Your task to perform on an android device: Turn on the flashlight Image 0: 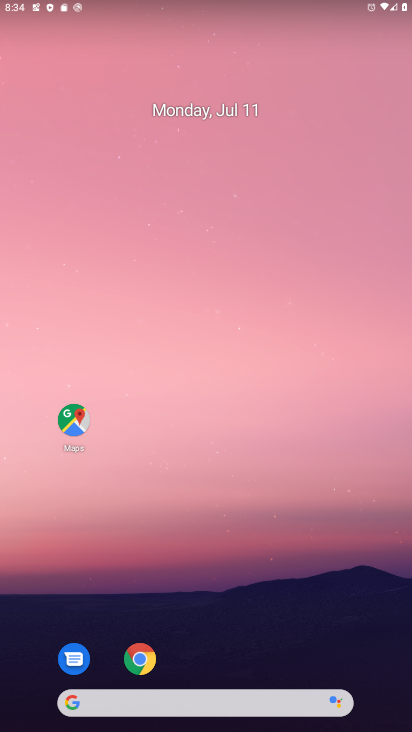
Step 0: drag from (252, 571) to (161, 79)
Your task to perform on an android device: Turn on the flashlight Image 1: 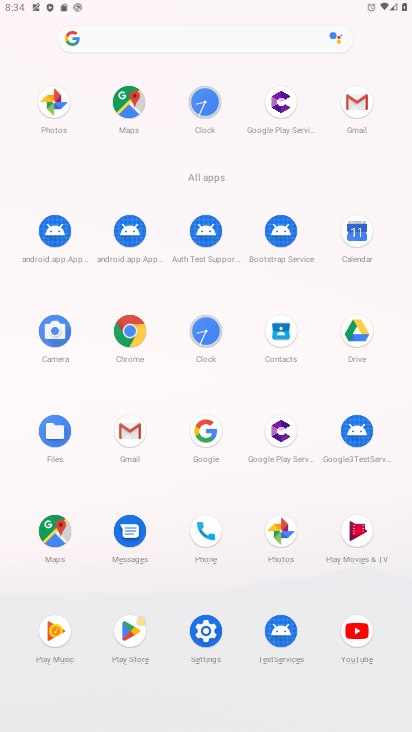
Step 1: click (208, 630)
Your task to perform on an android device: Turn on the flashlight Image 2: 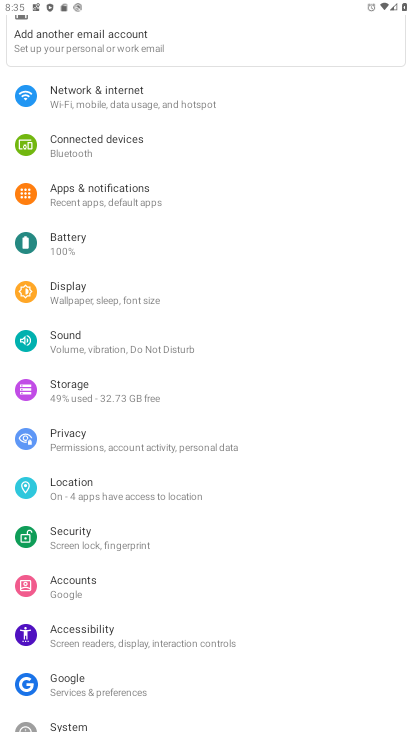
Step 2: click (78, 290)
Your task to perform on an android device: Turn on the flashlight Image 3: 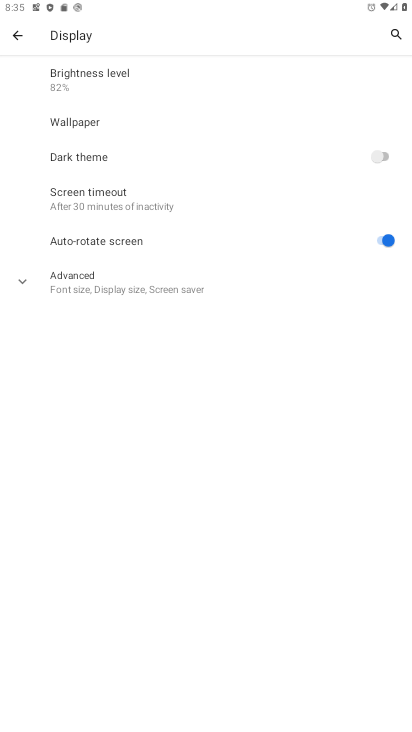
Step 3: task complete